Your task to perform on an android device: open app "Speedtest by Ookla" (install if not already installed) Image 0: 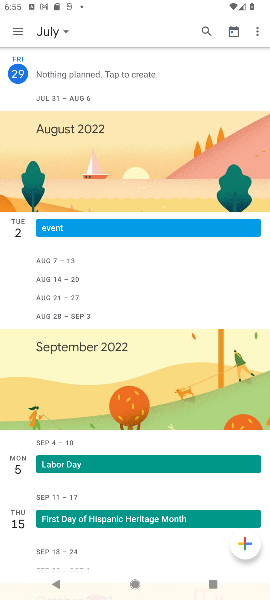
Step 0: press home button
Your task to perform on an android device: open app "Speedtest by Ookla" (install if not already installed) Image 1: 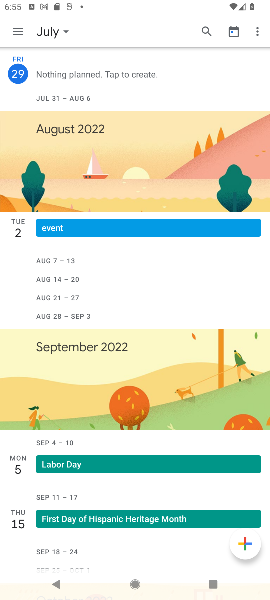
Step 1: press home button
Your task to perform on an android device: open app "Speedtest by Ookla" (install if not already installed) Image 2: 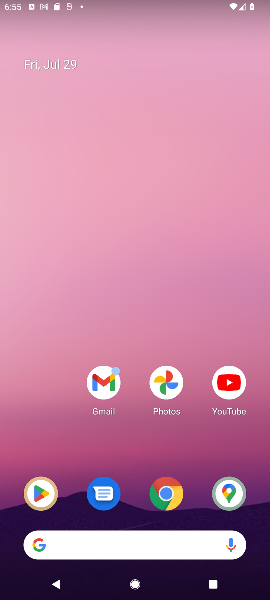
Step 2: drag from (145, 595) to (142, 65)
Your task to perform on an android device: open app "Speedtest by Ookla" (install if not already installed) Image 3: 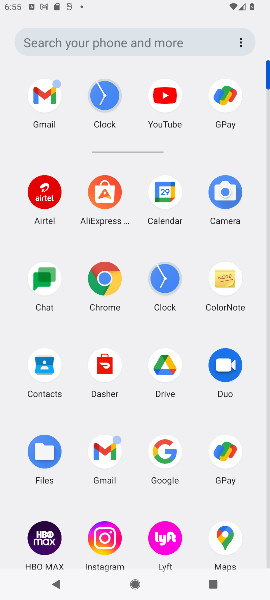
Step 3: drag from (140, 518) to (138, 163)
Your task to perform on an android device: open app "Speedtest by Ookla" (install if not already installed) Image 4: 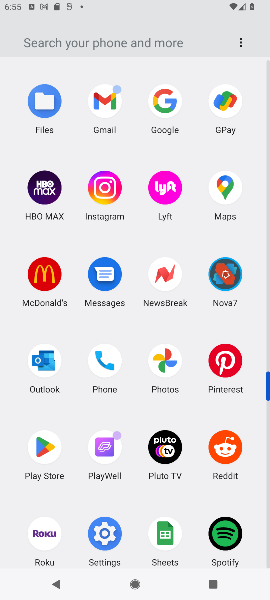
Step 4: press home button
Your task to perform on an android device: open app "Speedtest by Ookla" (install if not already installed) Image 5: 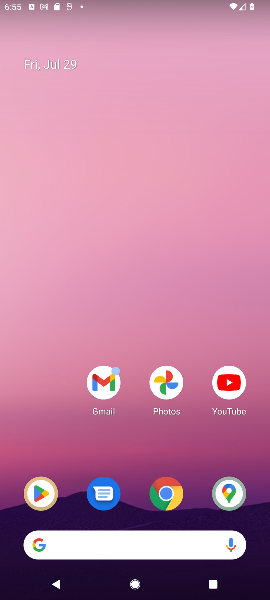
Step 5: drag from (217, 447) to (38, 443)
Your task to perform on an android device: open app "Speedtest by Ookla" (install if not already installed) Image 6: 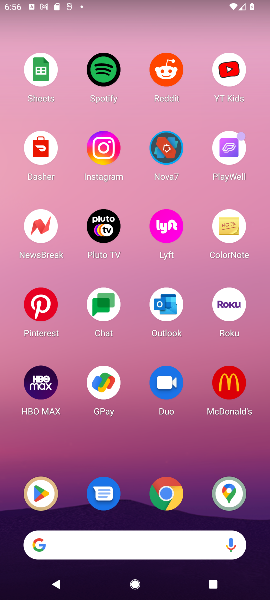
Step 6: drag from (207, 424) to (75, 422)
Your task to perform on an android device: open app "Speedtest by Ookla" (install if not already installed) Image 7: 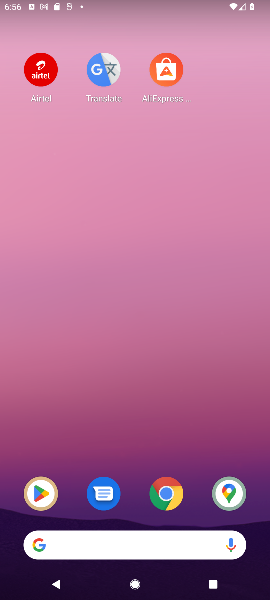
Step 7: drag from (250, 375) to (68, 374)
Your task to perform on an android device: open app "Speedtest by Ookla" (install if not already installed) Image 8: 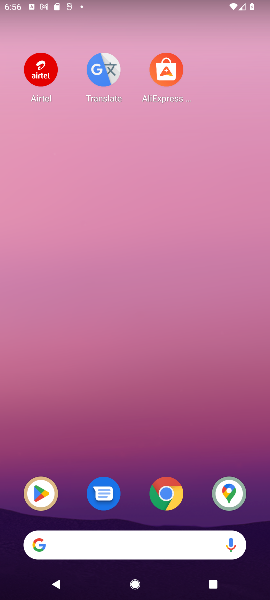
Step 8: drag from (35, 386) to (221, 397)
Your task to perform on an android device: open app "Speedtest by Ookla" (install if not already installed) Image 9: 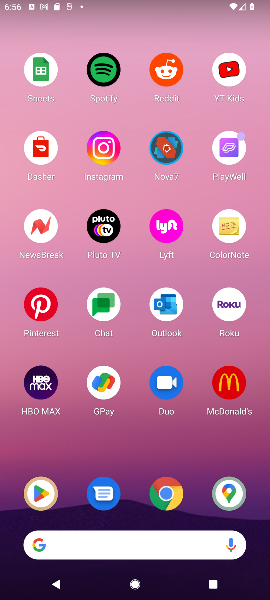
Step 9: drag from (18, 417) to (259, 423)
Your task to perform on an android device: open app "Speedtest by Ookla" (install if not already installed) Image 10: 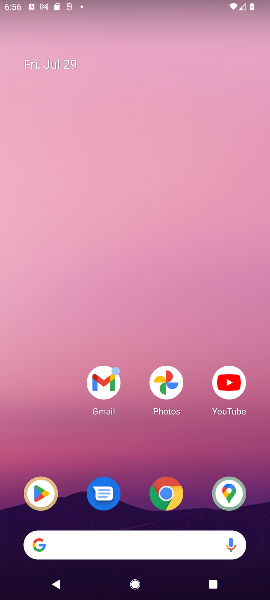
Step 10: click (42, 495)
Your task to perform on an android device: open app "Speedtest by Ookla" (install if not already installed) Image 11: 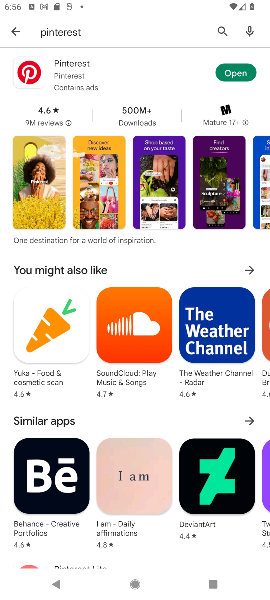
Step 11: click (219, 28)
Your task to perform on an android device: open app "Speedtest by Ookla" (install if not already installed) Image 12: 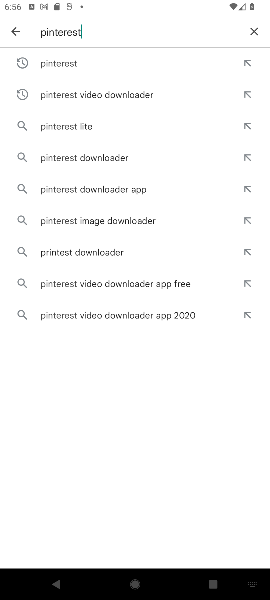
Step 12: click (253, 29)
Your task to perform on an android device: open app "Speedtest by Ookla" (install if not already installed) Image 13: 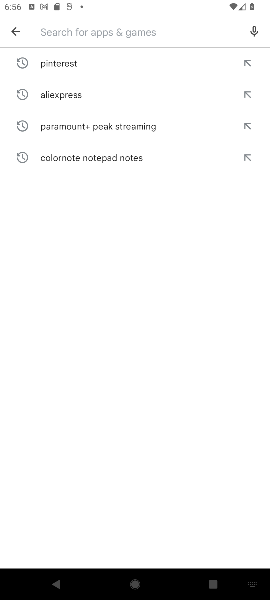
Step 13: type "Speedtest by Ookla"
Your task to perform on an android device: open app "Speedtest by Ookla" (install if not already installed) Image 14: 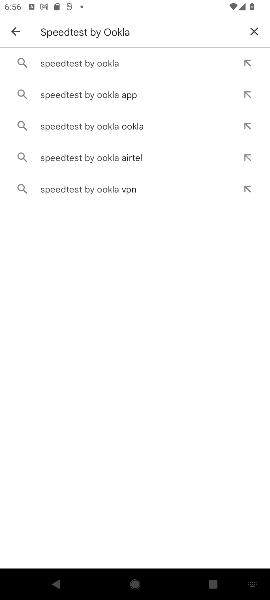
Step 14: click (68, 67)
Your task to perform on an android device: open app "Speedtest by Ookla" (install if not already installed) Image 15: 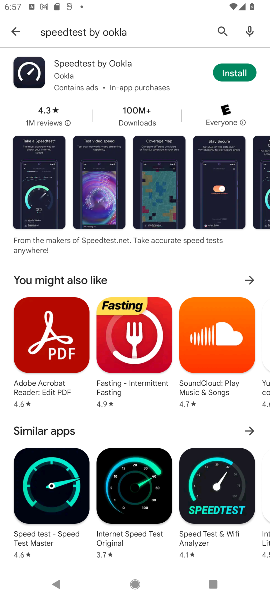
Step 15: click (253, 69)
Your task to perform on an android device: open app "Speedtest by Ookla" (install if not already installed) Image 16: 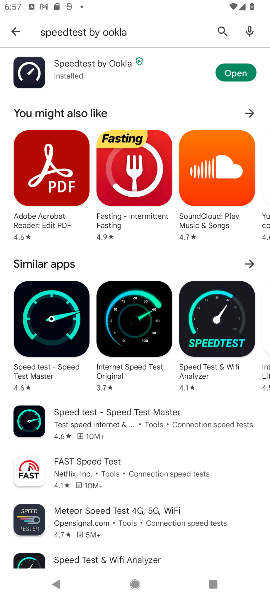
Step 16: task complete